Your task to perform on an android device: Search for Mexican restaurants on Maps Image 0: 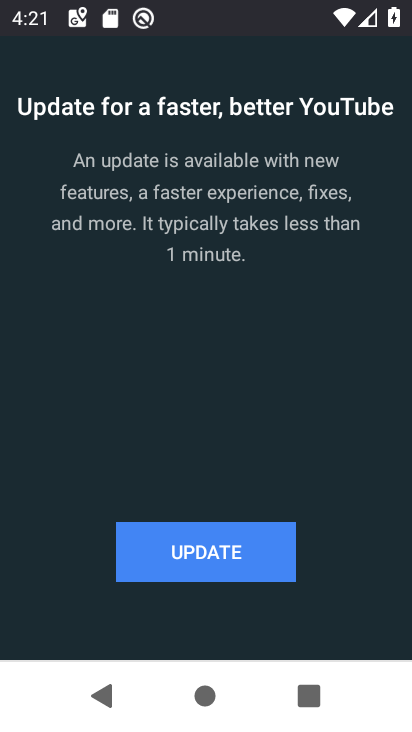
Step 0: press back button
Your task to perform on an android device: Search for Mexican restaurants on Maps Image 1: 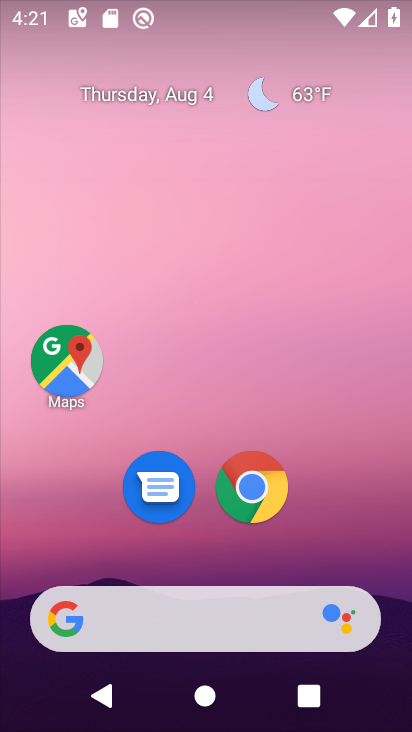
Step 1: click (72, 353)
Your task to perform on an android device: Search for Mexican restaurants on Maps Image 2: 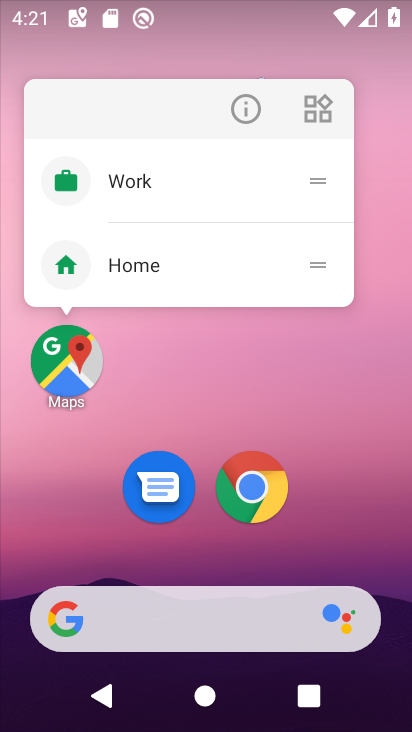
Step 2: click (69, 371)
Your task to perform on an android device: Search for Mexican restaurants on Maps Image 3: 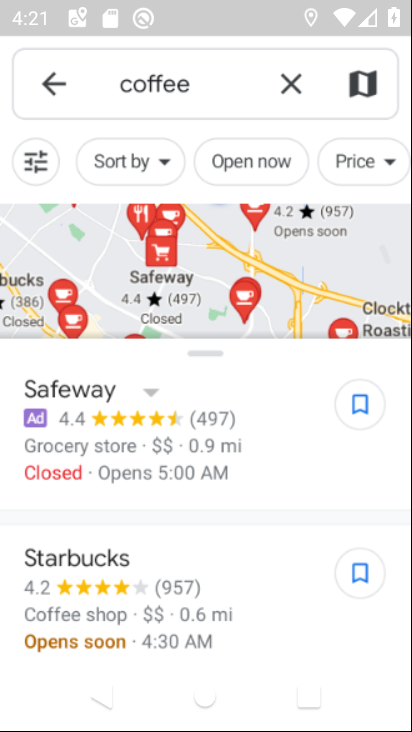
Step 3: click (291, 79)
Your task to perform on an android device: Search for Mexican restaurants on Maps Image 4: 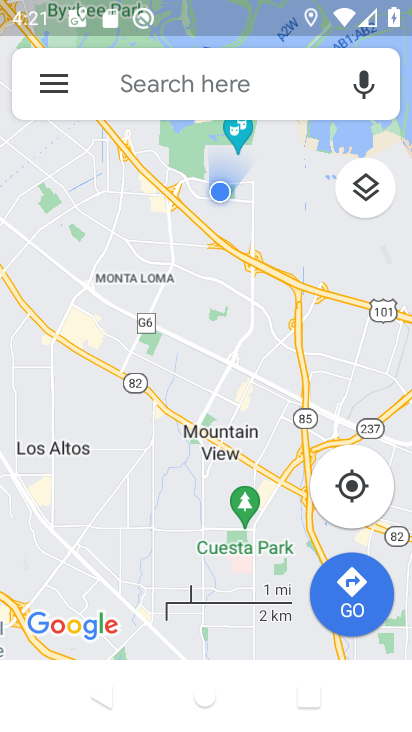
Step 4: click (215, 77)
Your task to perform on an android device: Search for Mexican restaurants on Maps Image 5: 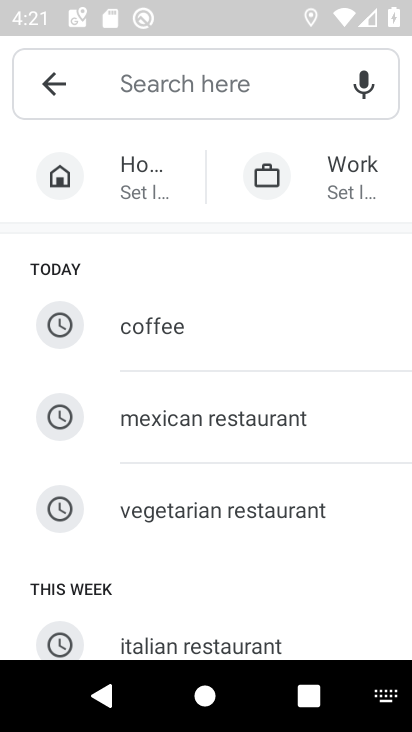
Step 5: type "mexican restaurants"
Your task to perform on an android device: Search for Mexican restaurants on Maps Image 6: 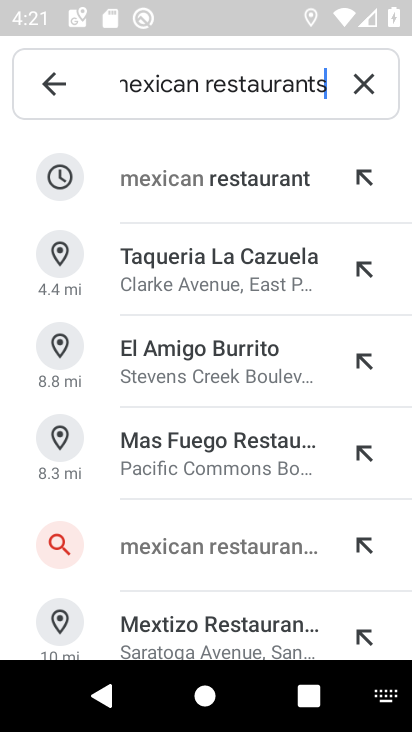
Step 6: click (194, 162)
Your task to perform on an android device: Search for Mexican restaurants on Maps Image 7: 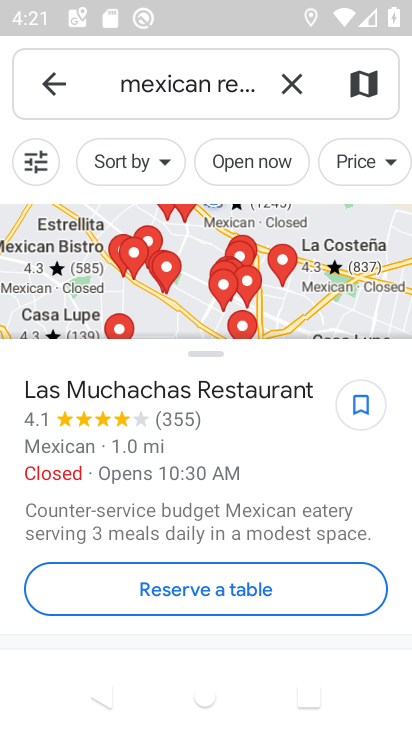
Step 7: task complete